Your task to perform on an android device: Open the Play Movies app and select the watchlist tab. Image 0: 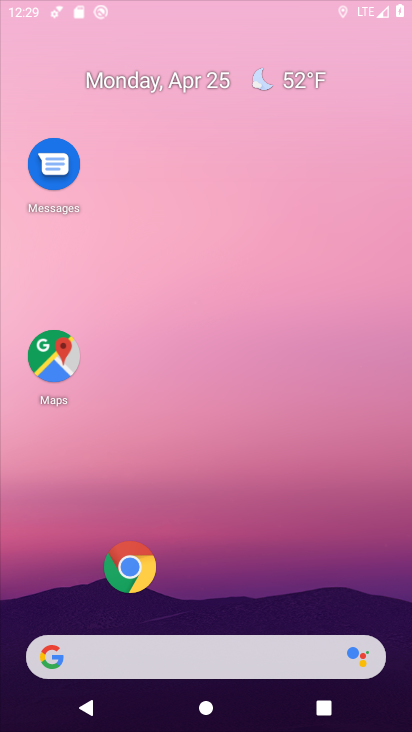
Step 0: drag from (231, 539) to (407, 15)
Your task to perform on an android device: Open the Play Movies app and select the watchlist tab. Image 1: 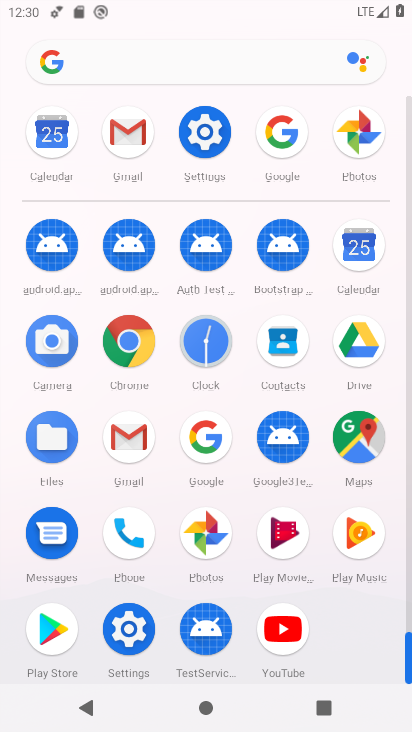
Step 1: drag from (278, 501) to (393, 59)
Your task to perform on an android device: Open the Play Movies app and select the watchlist tab. Image 2: 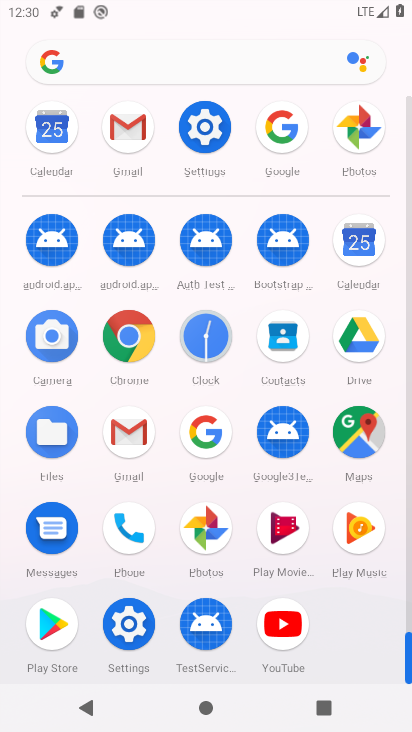
Step 2: click (292, 545)
Your task to perform on an android device: Open the Play Movies app and select the watchlist tab. Image 3: 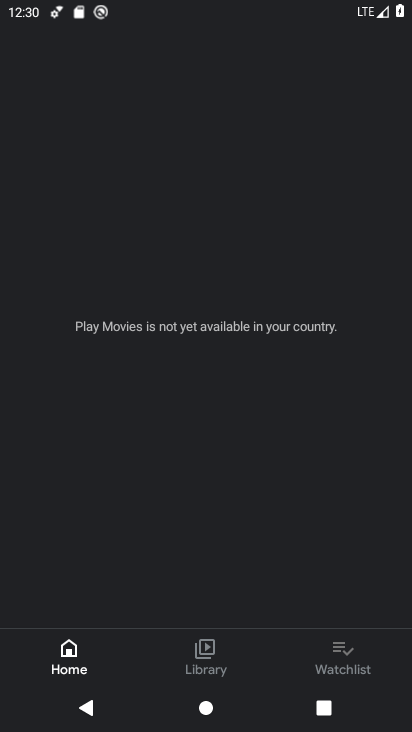
Step 3: click (350, 672)
Your task to perform on an android device: Open the Play Movies app and select the watchlist tab. Image 4: 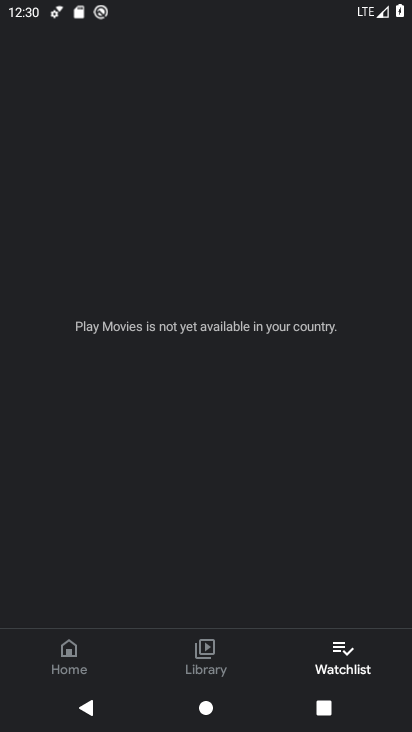
Step 4: task complete